Your task to perform on an android device: toggle notification dots Image 0: 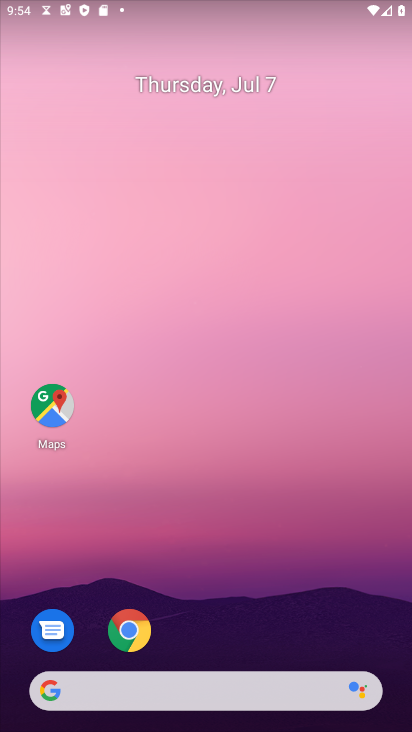
Step 0: drag from (147, 646) to (224, 230)
Your task to perform on an android device: toggle notification dots Image 1: 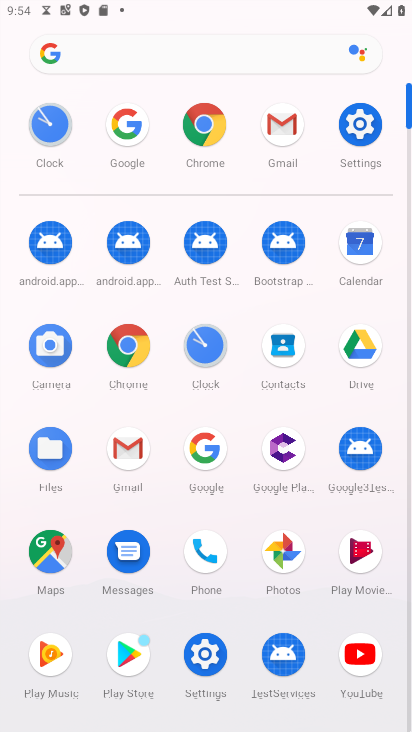
Step 1: click (351, 129)
Your task to perform on an android device: toggle notification dots Image 2: 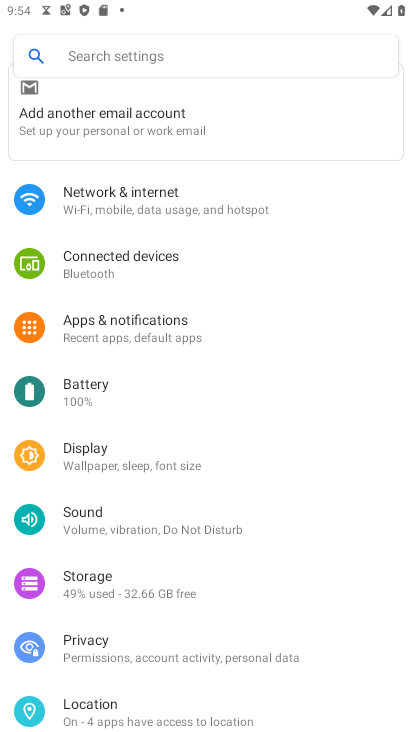
Step 2: click (74, 325)
Your task to perform on an android device: toggle notification dots Image 3: 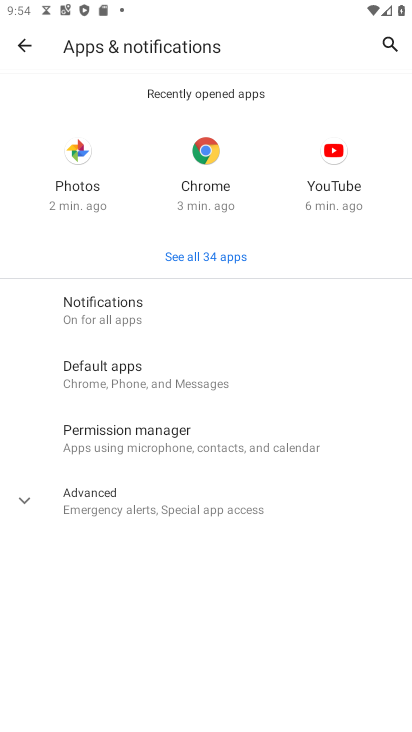
Step 3: click (95, 315)
Your task to perform on an android device: toggle notification dots Image 4: 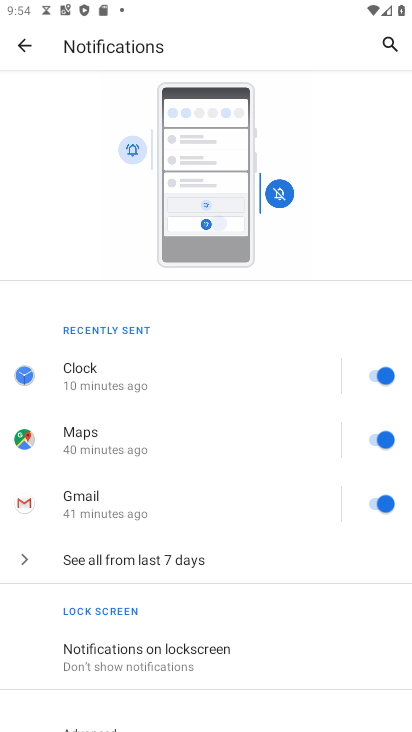
Step 4: drag from (144, 678) to (167, 334)
Your task to perform on an android device: toggle notification dots Image 5: 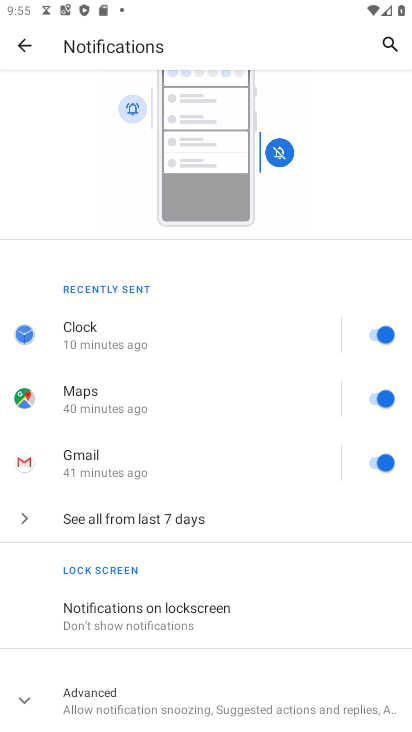
Step 5: click (101, 695)
Your task to perform on an android device: toggle notification dots Image 6: 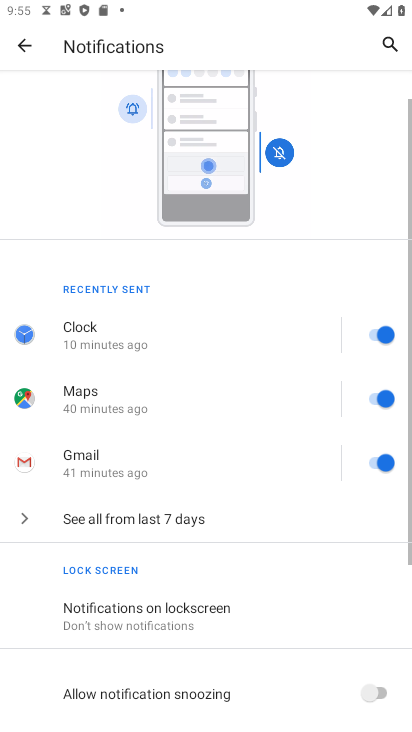
Step 6: drag from (250, 720) to (256, 346)
Your task to perform on an android device: toggle notification dots Image 7: 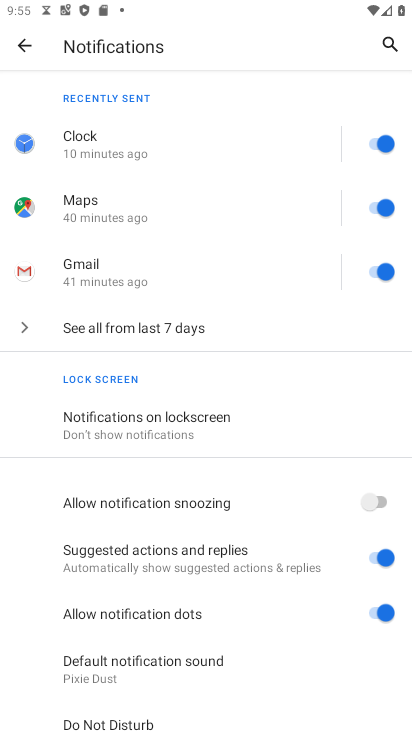
Step 7: click (386, 613)
Your task to perform on an android device: toggle notification dots Image 8: 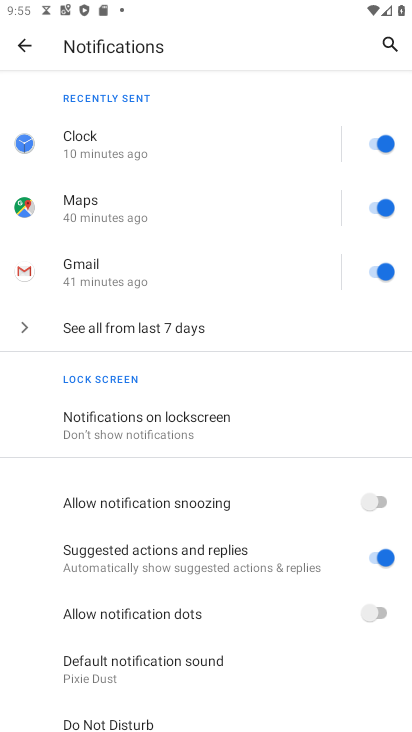
Step 8: task complete